Your task to perform on an android device: Open calendar and show me the third week of next month Image 0: 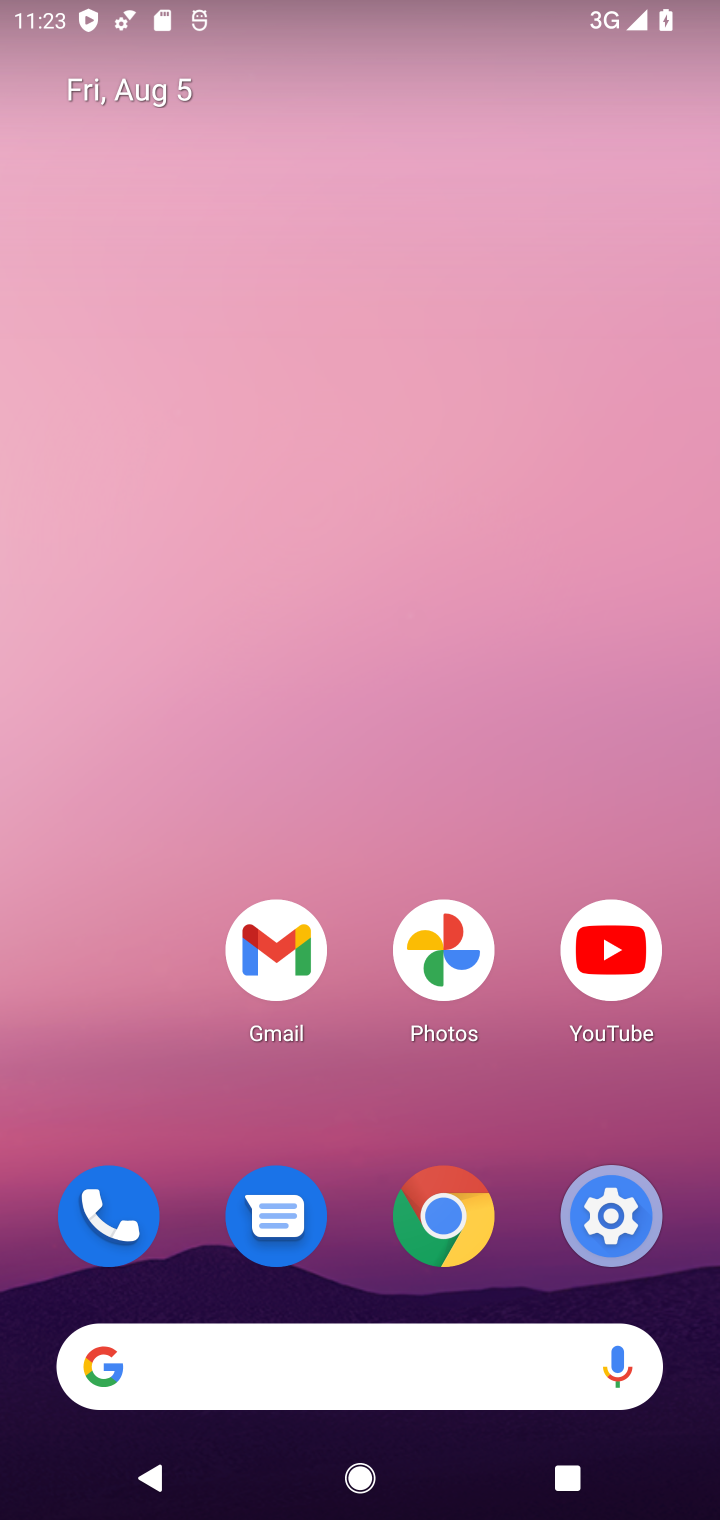
Step 0: drag from (402, 1361) to (539, 382)
Your task to perform on an android device: Open calendar and show me the third week of next month Image 1: 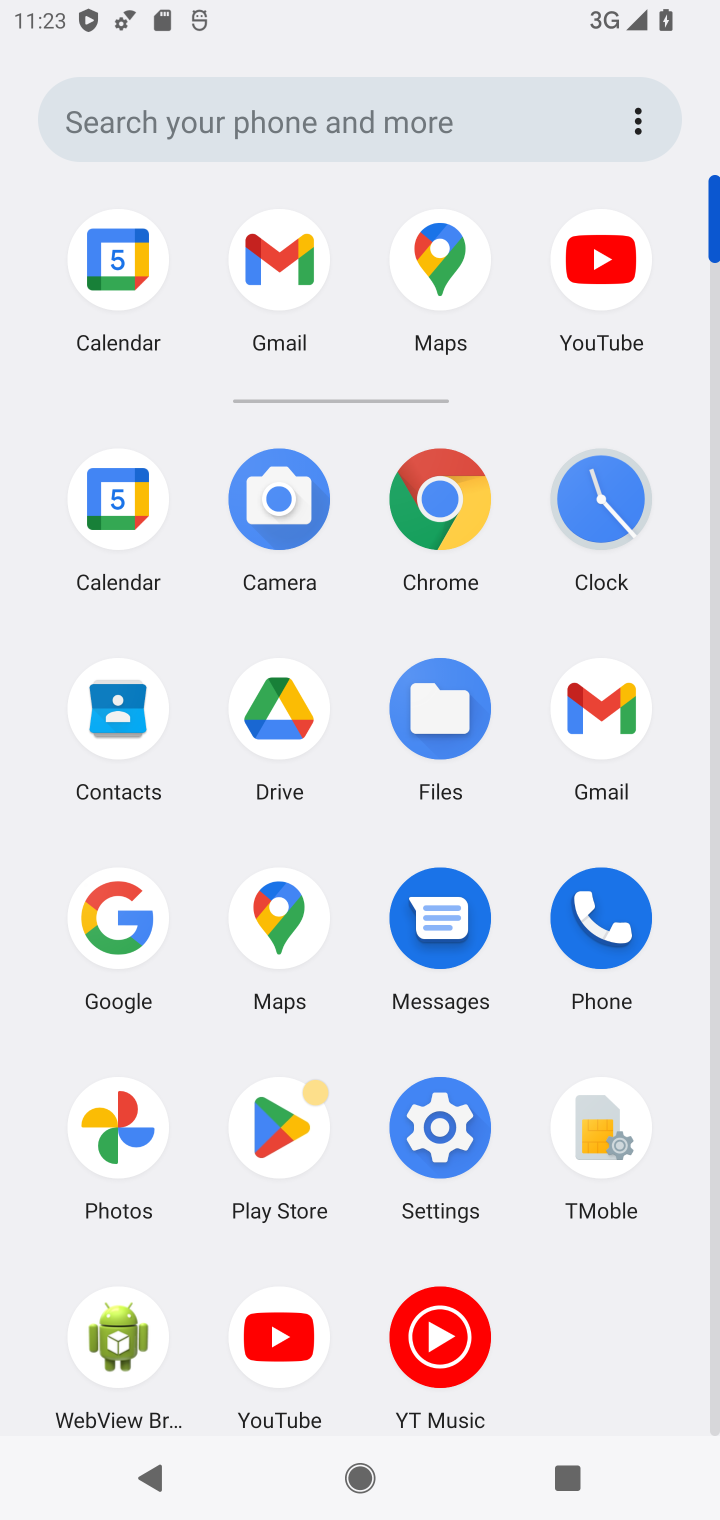
Step 1: click (113, 478)
Your task to perform on an android device: Open calendar and show me the third week of next month Image 2: 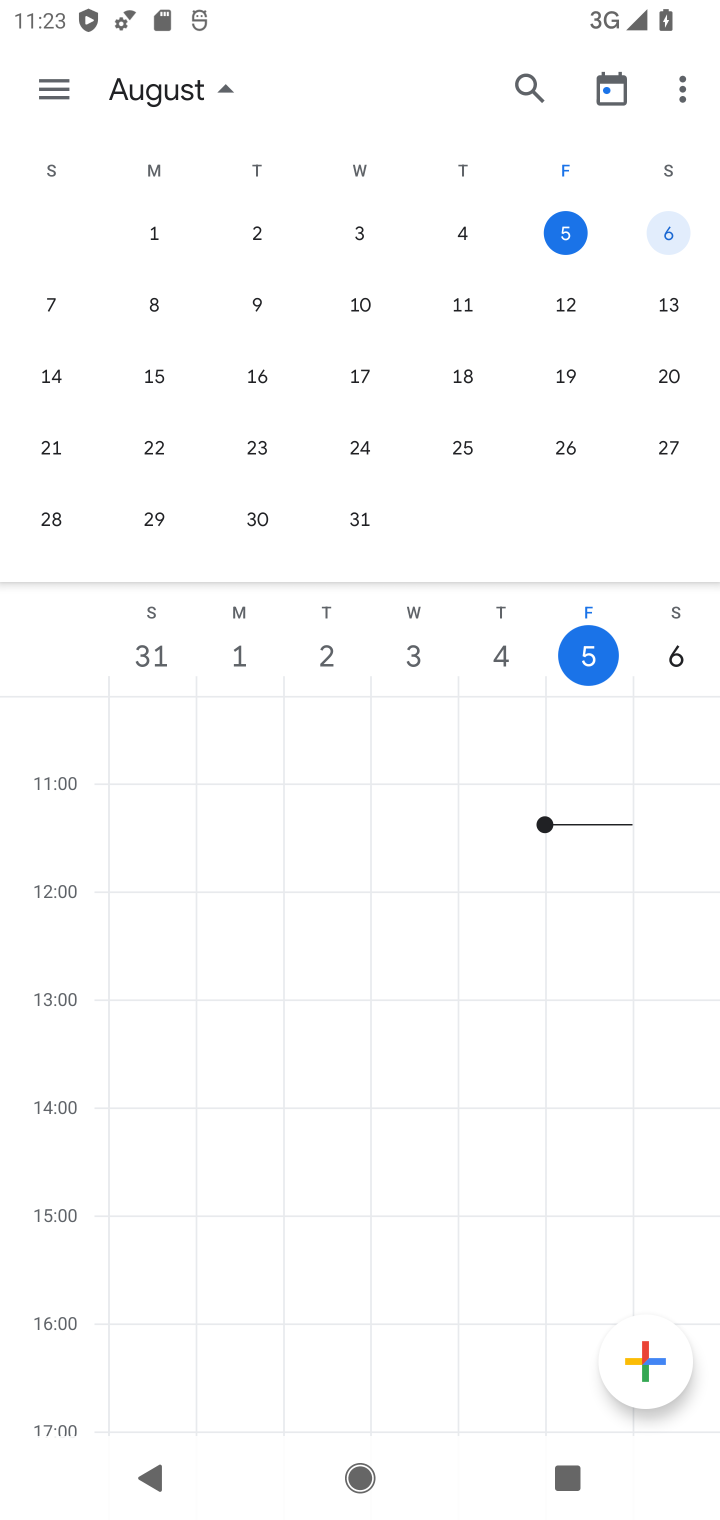
Step 2: click (349, 376)
Your task to perform on an android device: Open calendar and show me the third week of next month Image 3: 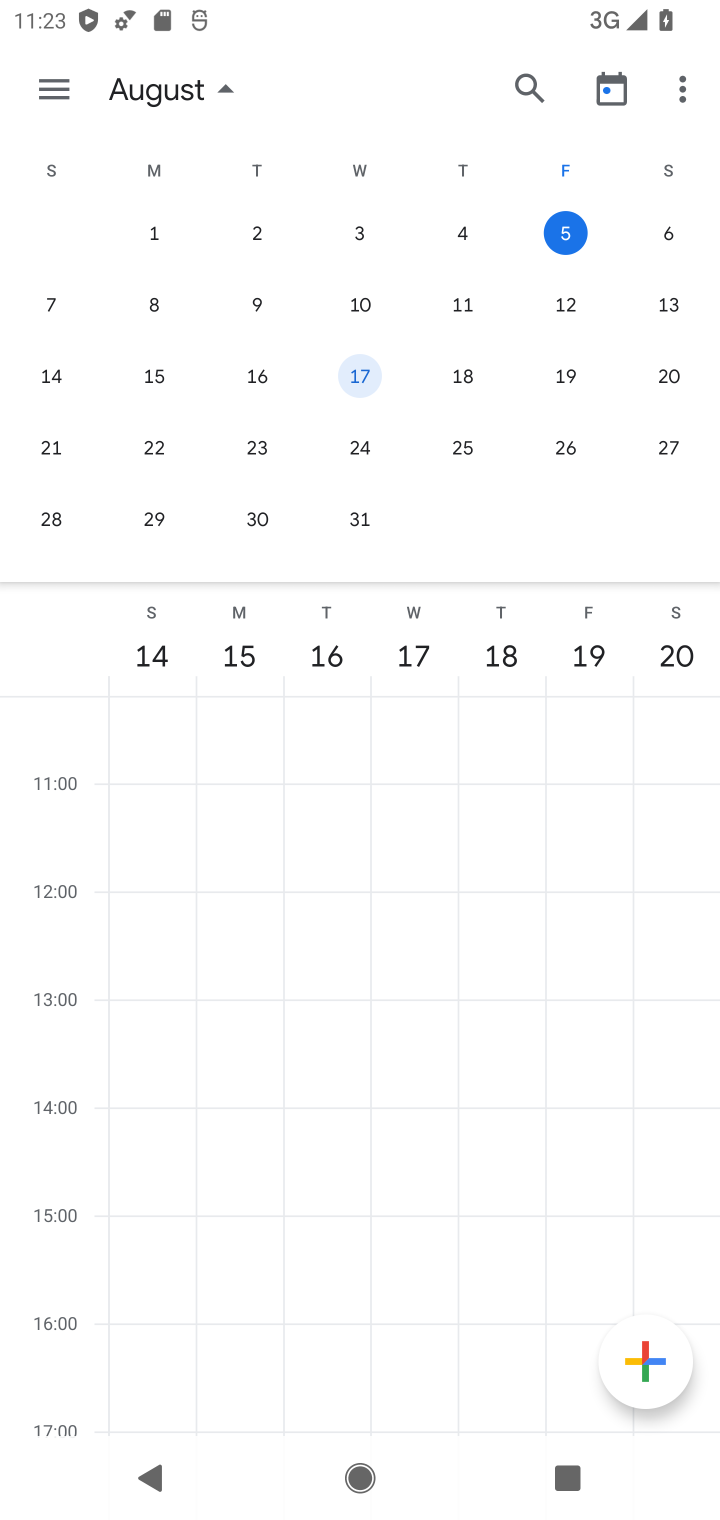
Step 3: drag from (647, 372) to (13, 325)
Your task to perform on an android device: Open calendar and show me the third week of next month Image 4: 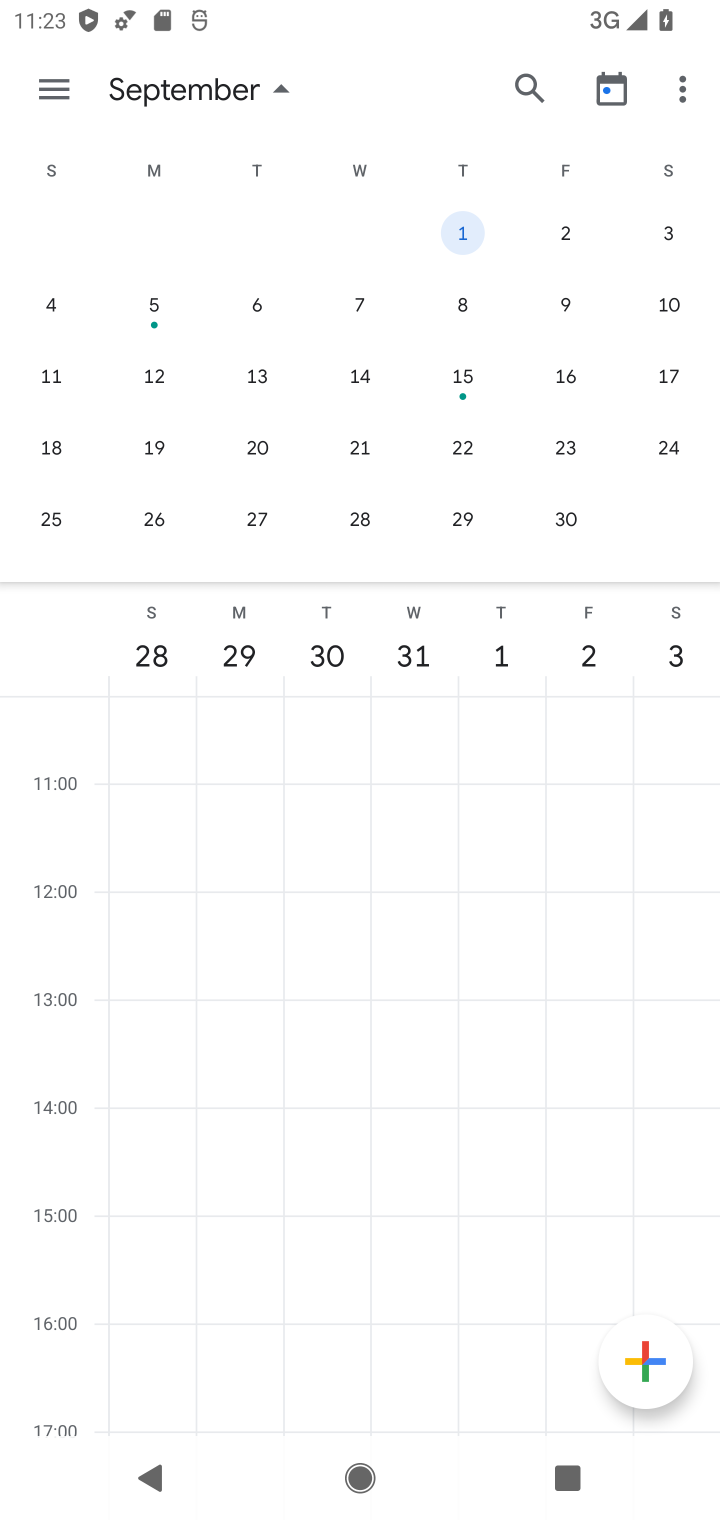
Step 4: click (456, 376)
Your task to perform on an android device: Open calendar and show me the third week of next month Image 5: 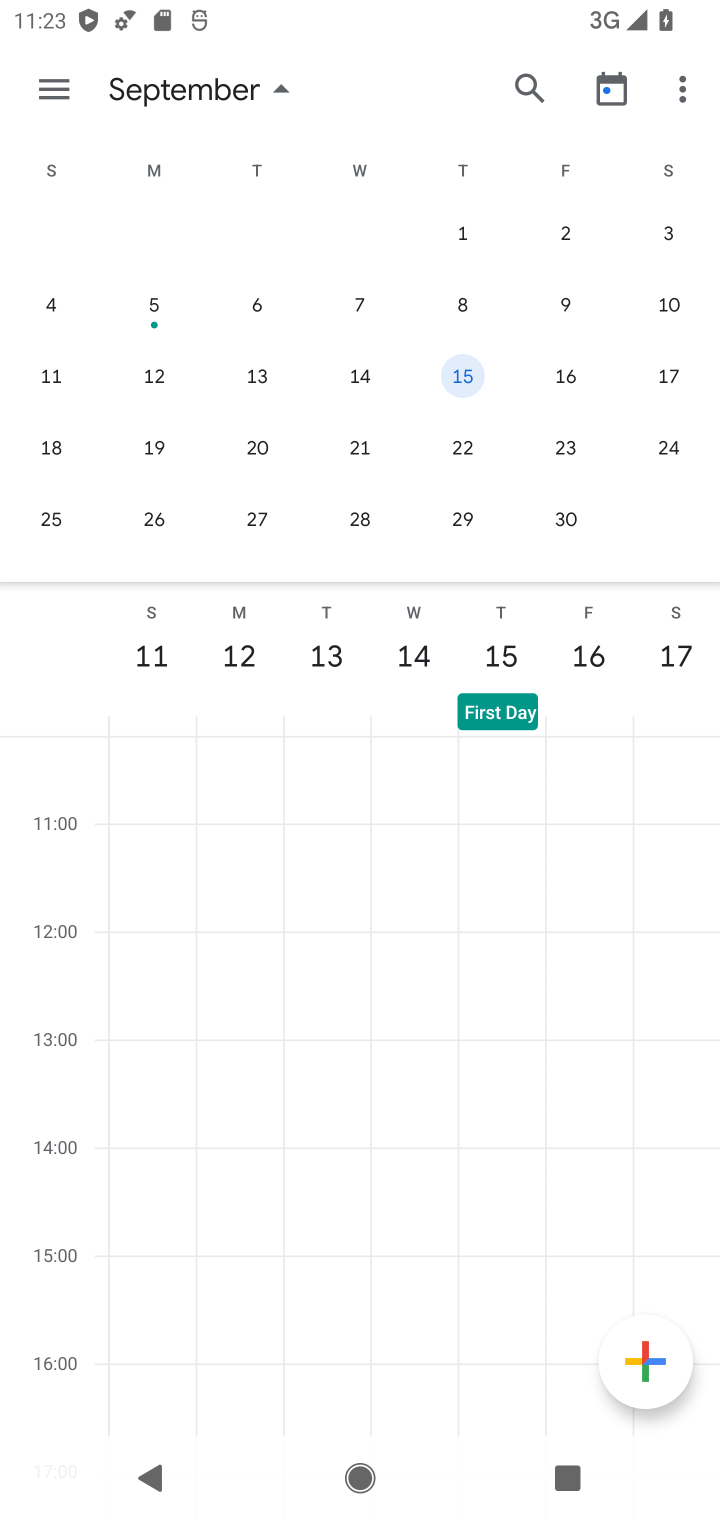
Step 5: task complete